Your task to perform on an android device: delete a single message in the gmail app Image 0: 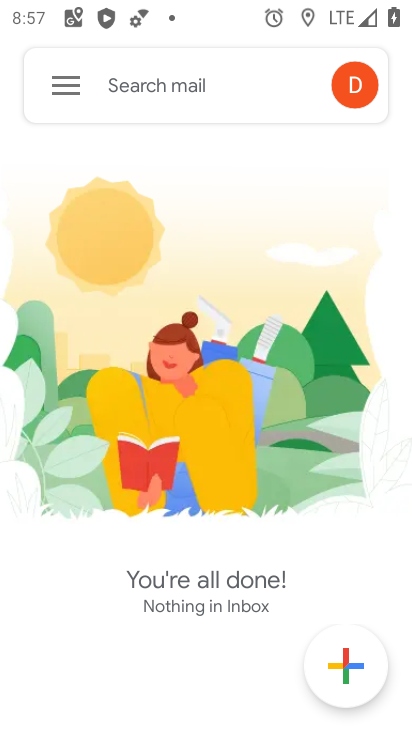
Step 0: press home button
Your task to perform on an android device: delete a single message in the gmail app Image 1: 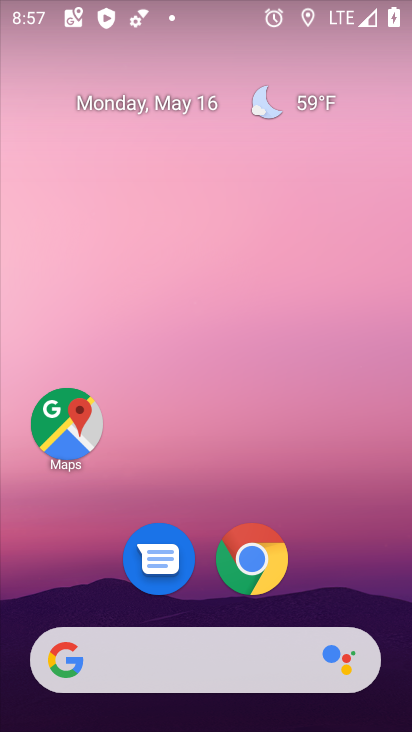
Step 1: drag from (351, 590) to (356, 172)
Your task to perform on an android device: delete a single message in the gmail app Image 2: 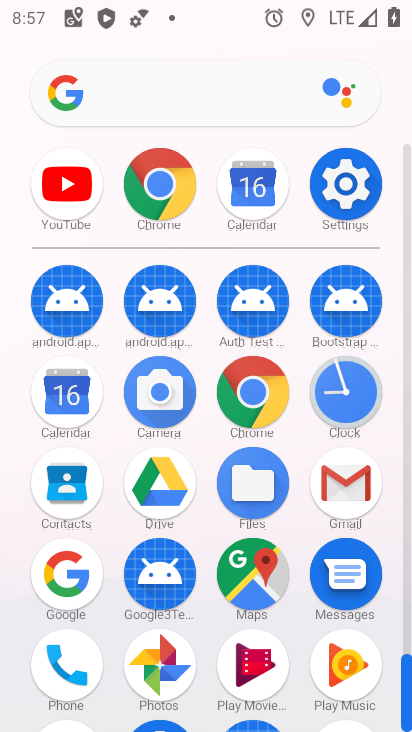
Step 2: click (328, 494)
Your task to perform on an android device: delete a single message in the gmail app Image 3: 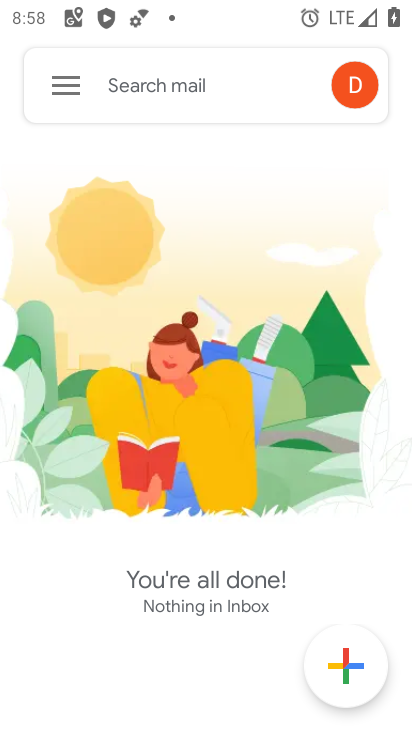
Step 3: click (50, 79)
Your task to perform on an android device: delete a single message in the gmail app Image 4: 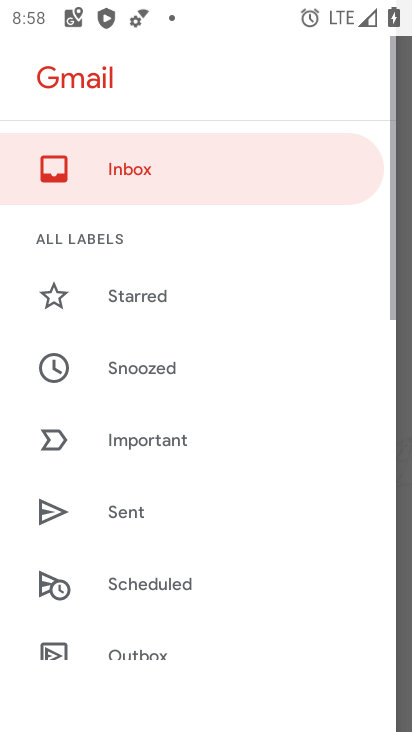
Step 4: drag from (202, 581) to (210, 220)
Your task to perform on an android device: delete a single message in the gmail app Image 5: 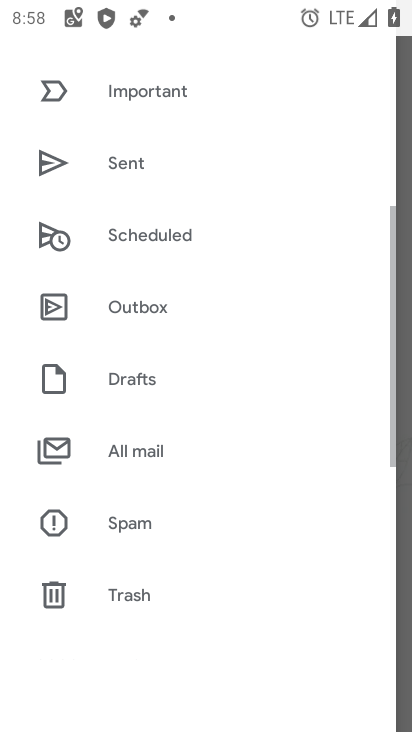
Step 5: drag from (243, 604) to (247, 338)
Your task to perform on an android device: delete a single message in the gmail app Image 6: 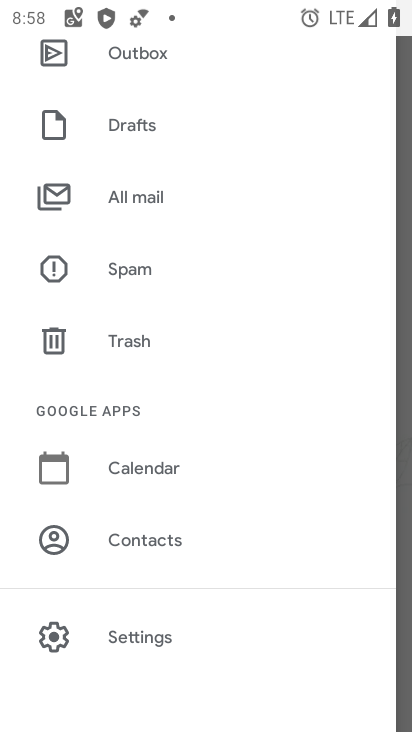
Step 6: click (154, 200)
Your task to perform on an android device: delete a single message in the gmail app Image 7: 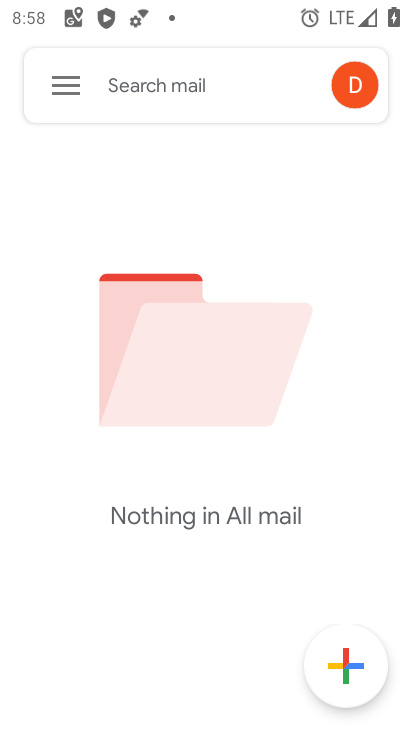
Step 7: task complete